Your task to perform on an android device: Go to settings Image 0: 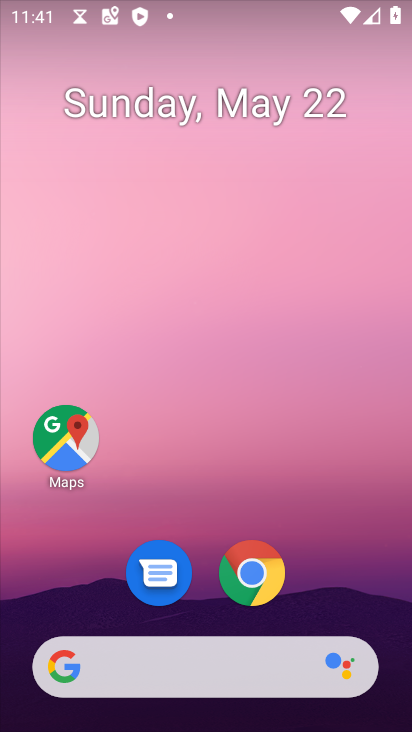
Step 0: press home button
Your task to perform on an android device: Go to settings Image 1: 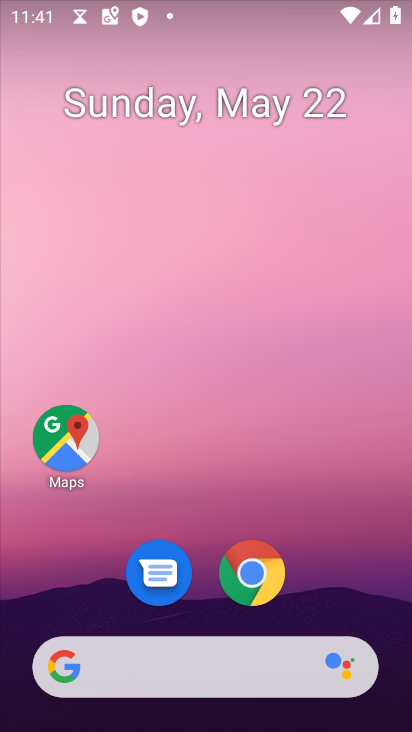
Step 1: drag from (151, 682) to (286, 266)
Your task to perform on an android device: Go to settings Image 2: 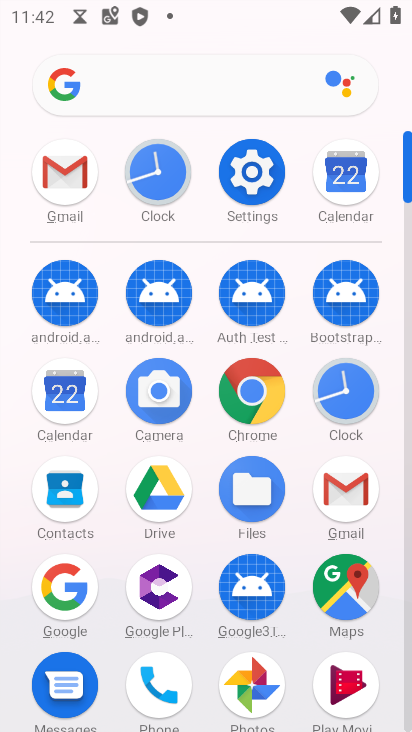
Step 2: click (262, 184)
Your task to perform on an android device: Go to settings Image 3: 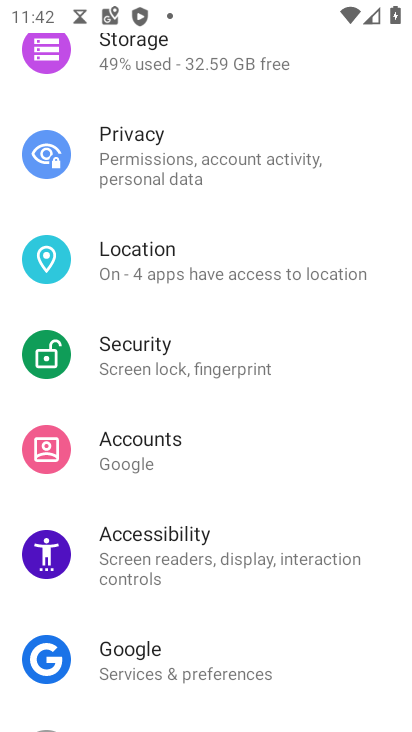
Step 3: task complete